Your task to perform on an android device: turn on translation in the chrome app Image 0: 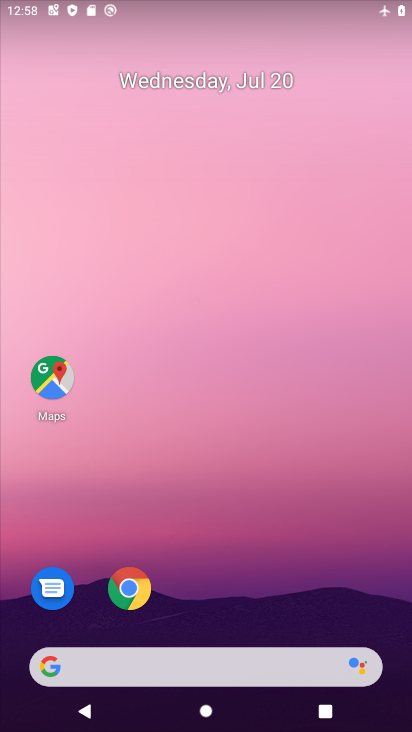
Step 0: click (127, 575)
Your task to perform on an android device: turn on translation in the chrome app Image 1: 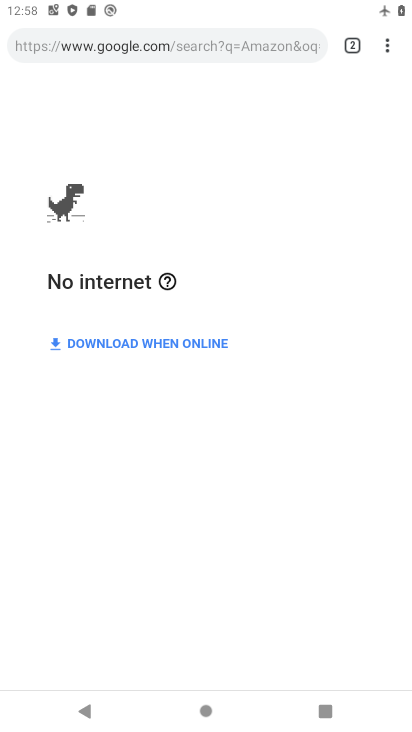
Step 1: task complete